Your task to perform on an android device: Go to sound settings Image 0: 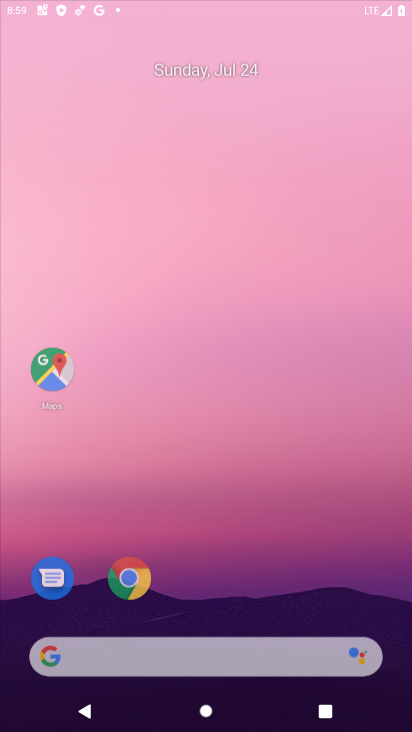
Step 0: click (116, 594)
Your task to perform on an android device: Go to sound settings Image 1: 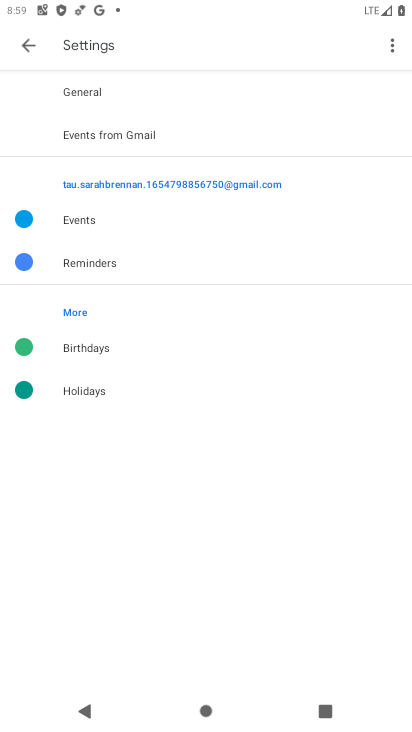
Step 1: press home button
Your task to perform on an android device: Go to sound settings Image 2: 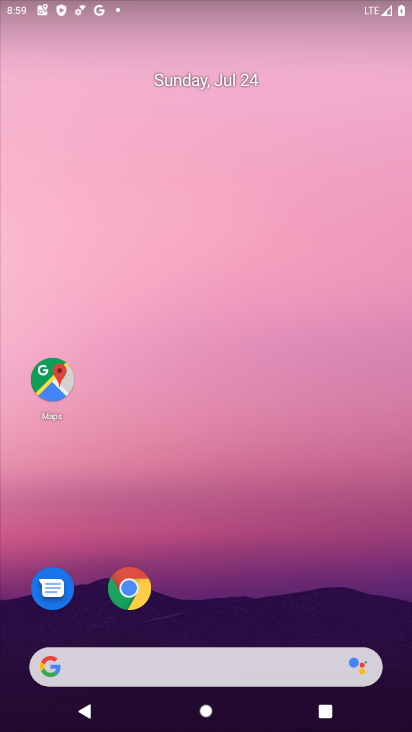
Step 2: drag from (214, 656) to (167, 120)
Your task to perform on an android device: Go to sound settings Image 3: 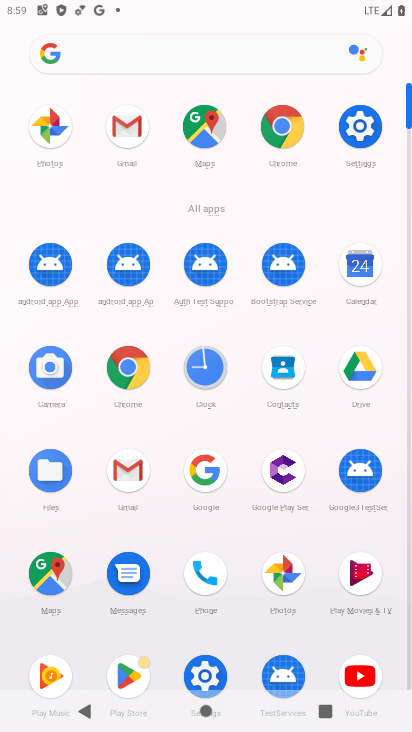
Step 3: click (372, 146)
Your task to perform on an android device: Go to sound settings Image 4: 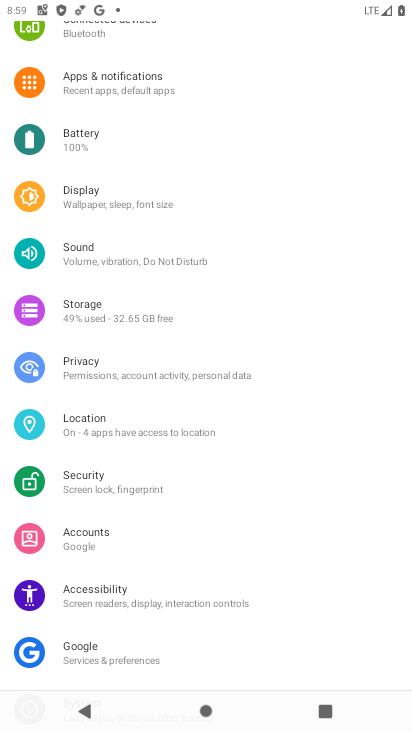
Step 4: click (107, 257)
Your task to perform on an android device: Go to sound settings Image 5: 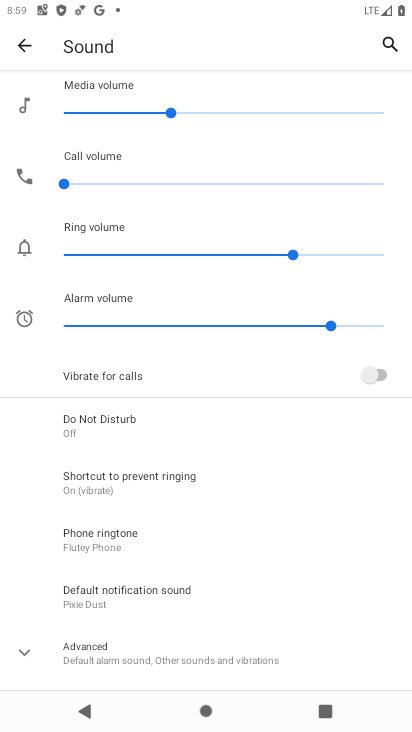
Step 5: task complete